Your task to perform on an android device: turn on sleep mode Image 0: 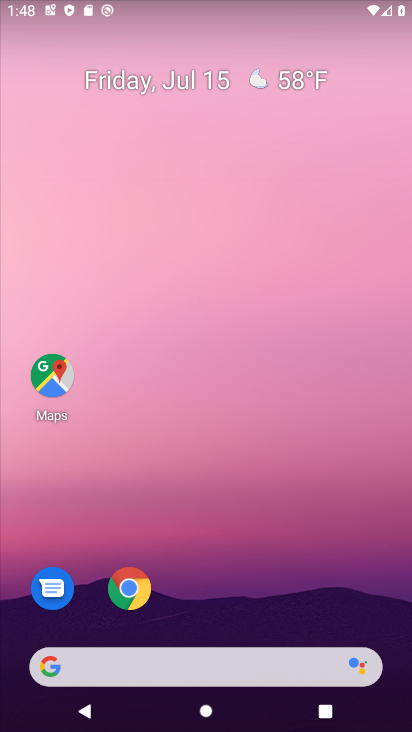
Step 0: drag from (261, 343) to (252, 24)
Your task to perform on an android device: turn on sleep mode Image 1: 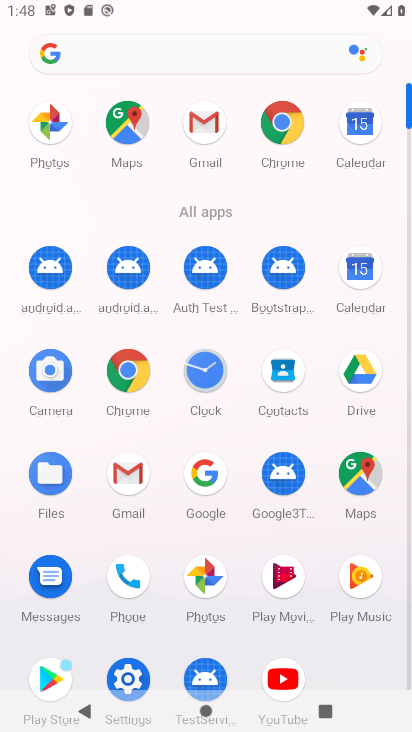
Step 1: click (129, 665)
Your task to perform on an android device: turn on sleep mode Image 2: 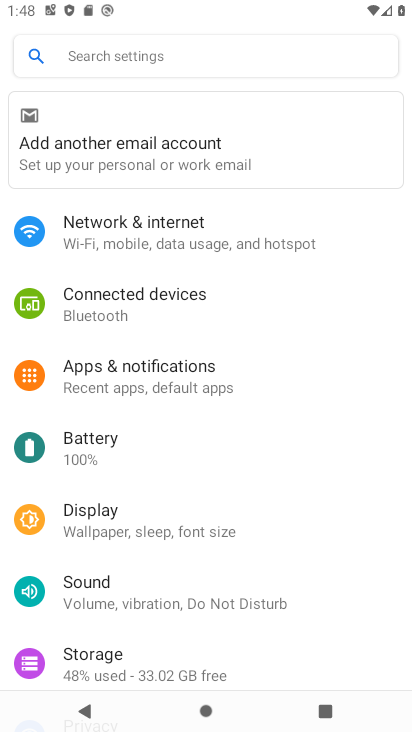
Step 2: click (174, 517)
Your task to perform on an android device: turn on sleep mode Image 3: 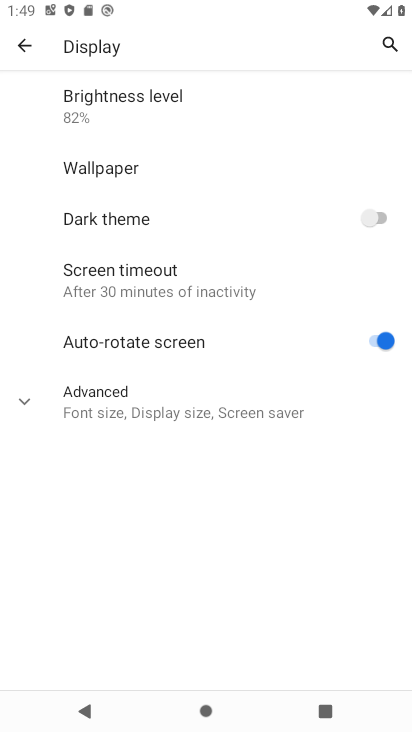
Step 3: click (156, 397)
Your task to perform on an android device: turn on sleep mode Image 4: 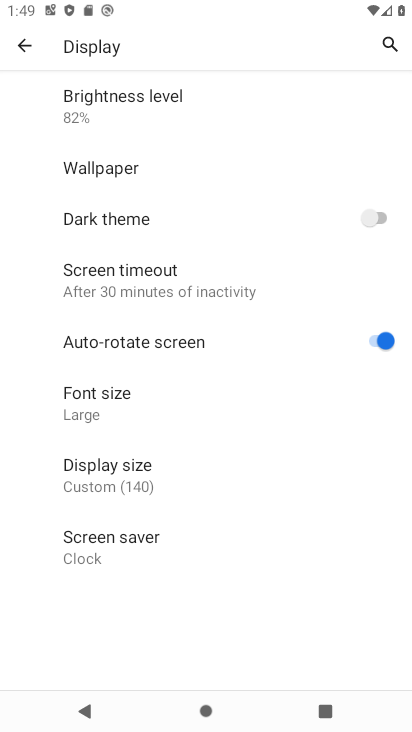
Step 4: task complete